Your task to perform on an android device: turn on showing notifications on the lock screen Image 0: 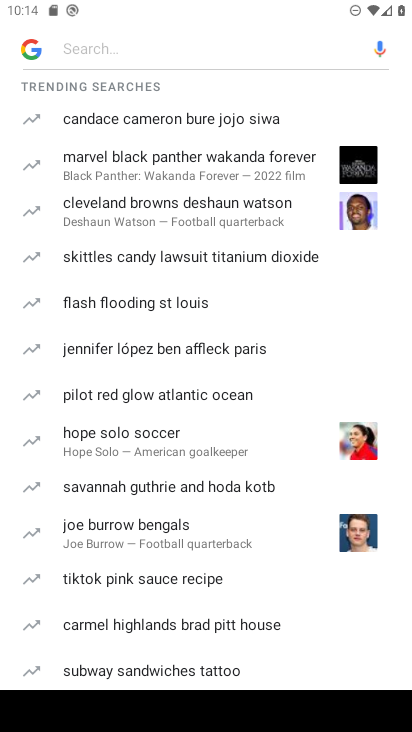
Step 0: press home button
Your task to perform on an android device: turn on showing notifications on the lock screen Image 1: 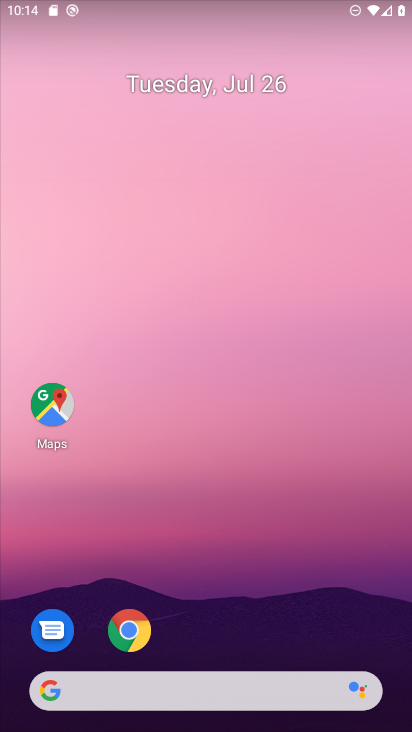
Step 1: drag from (382, 631) to (331, 124)
Your task to perform on an android device: turn on showing notifications on the lock screen Image 2: 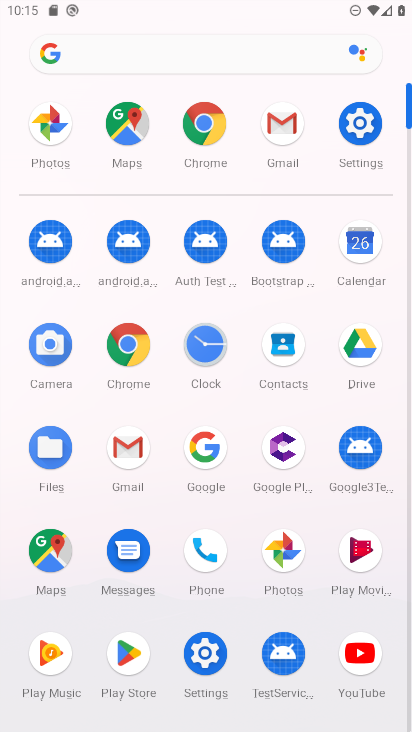
Step 2: click (204, 648)
Your task to perform on an android device: turn on showing notifications on the lock screen Image 3: 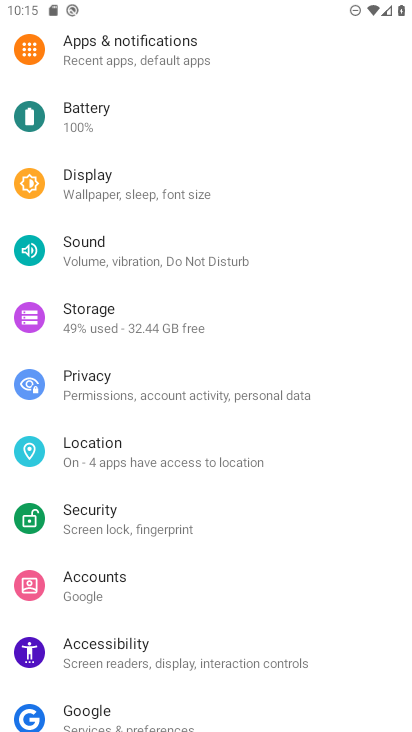
Step 3: drag from (303, 216) to (319, 458)
Your task to perform on an android device: turn on showing notifications on the lock screen Image 4: 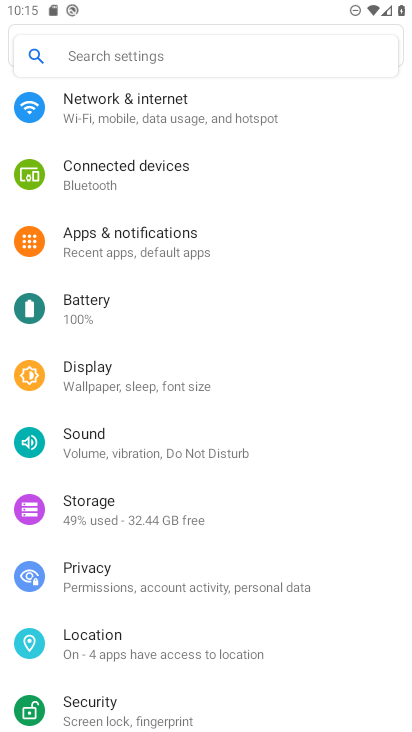
Step 4: click (107, 238)
Your task to perform on an android device: turn on showing notifications on the lock screen Image 5: 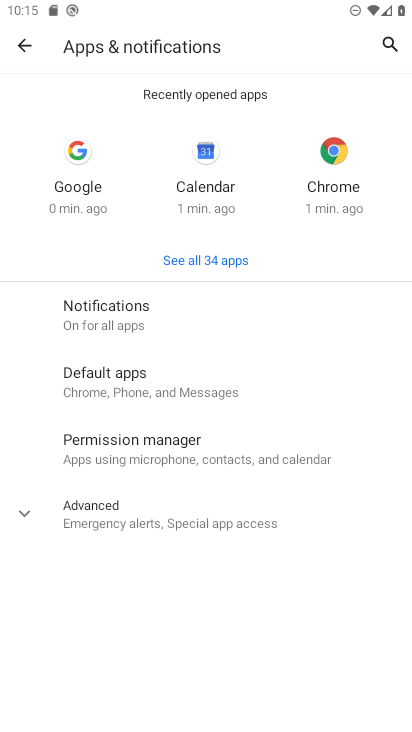
Step 5: click (101, 320)
Your task to perform on an android device: turn on showing notifications on the lock screen Image 6: 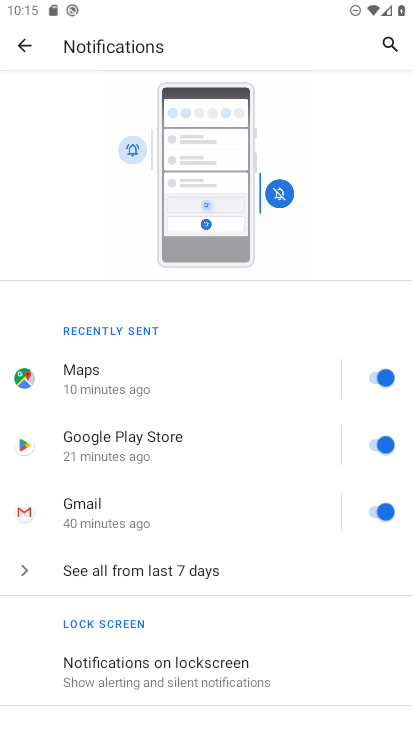
Step 6: drag from (270, 639) to (326, 259)
Your task to perform on an android device: turn on showing notifications on the lock screen Image 7: 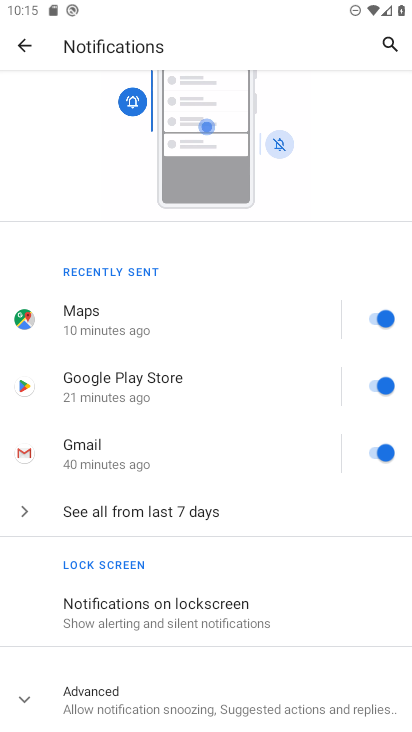
Step 7: click (164, 611)
Your task to perform on an android device: turn on showing notifications on the lock screen Image 8: 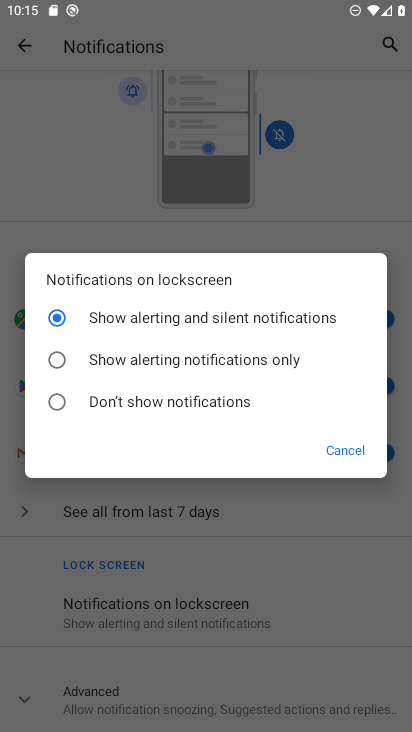
Step 8: task complete